Your task to perform on an android device: Open privacy settings Image 0: 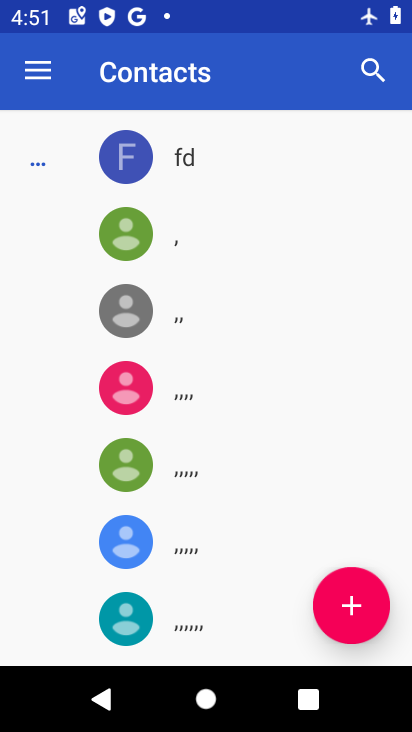
Step 0: press home button
Your task to perform on an android device: Open privacy settings Image 1: 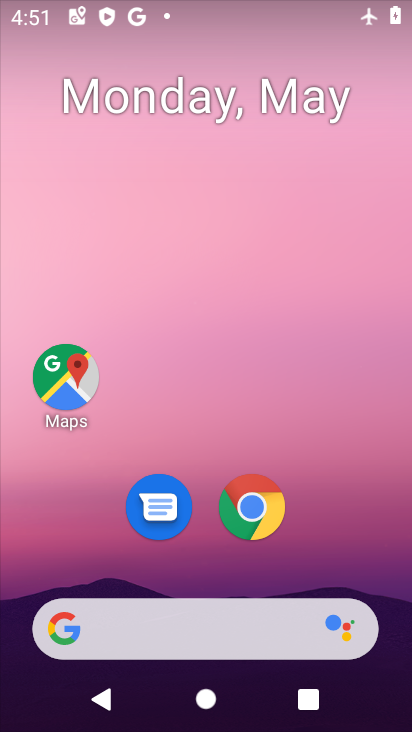
Step 1: drag from (380, 512) to (392, 66)
Your task to perform on an android device: Open privacy settings Image 2: 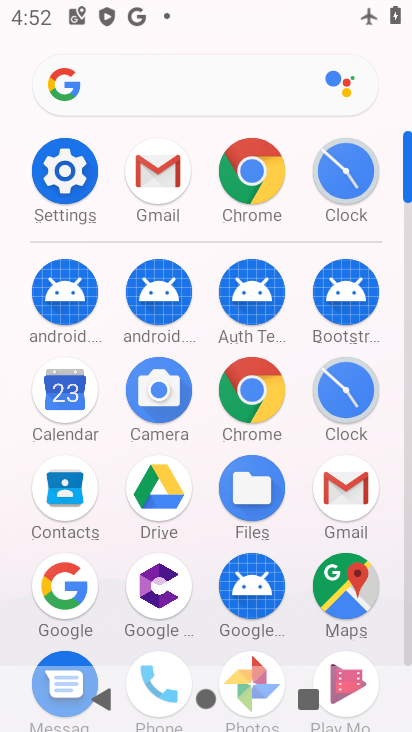
Step 2: click (53, 177)
Your task to perform on an android device: Open privacy settings Image 3: 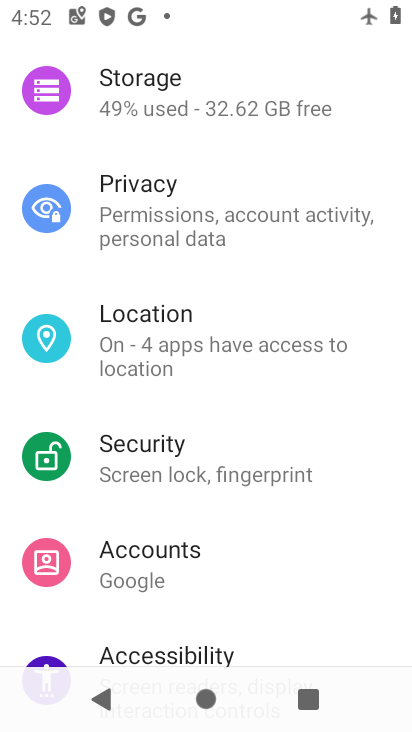
Step 3: click (94, 207)
Your task to perform on an android device: Open privacy settings Image 4: 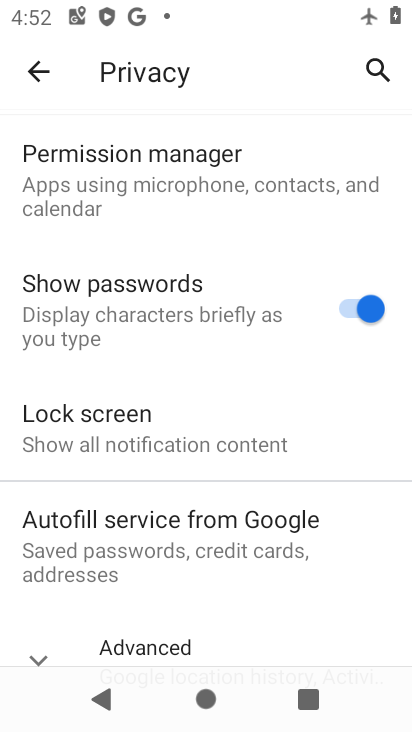
Step 4: task complete